Your task to perform on an android device: Open calendar and show me the first week of next month Image 0: 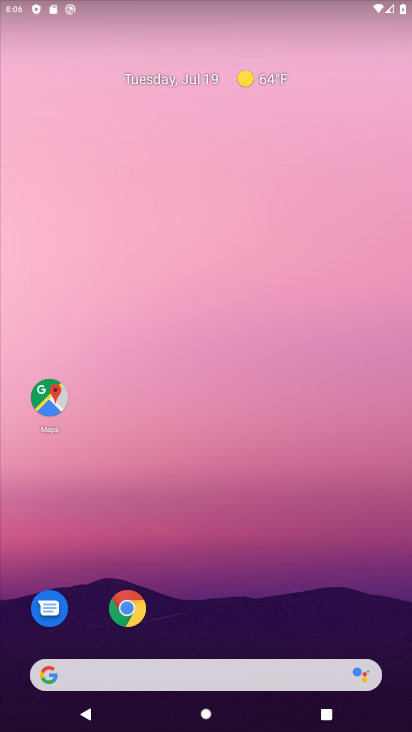
Step 0: drag from (217, 672) to (278, 129)
Your task to perform on an android device: Open calendar and show me the first week of next month Image 1: 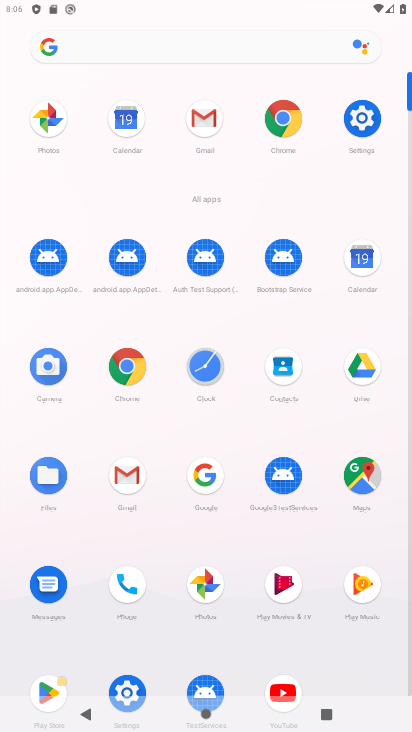
Step 1: click (351, 255)
Your task to perform on an android device: Open calendar and show me the first week of next month Image 2: 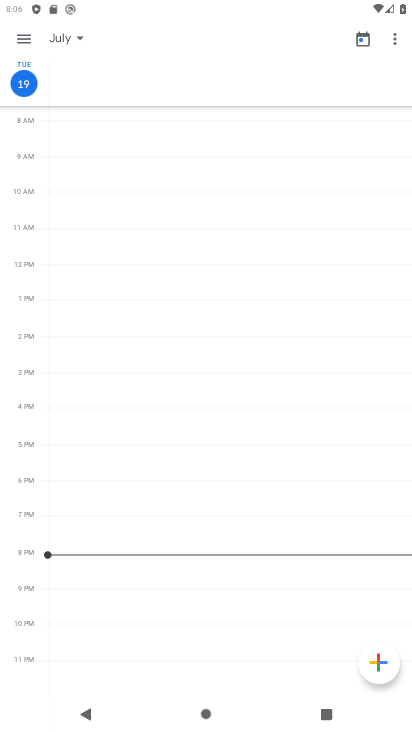
Step 2: click (29, 38)
Your task to perform on an android device: Open calendar and show me the first week of next month Image 3: 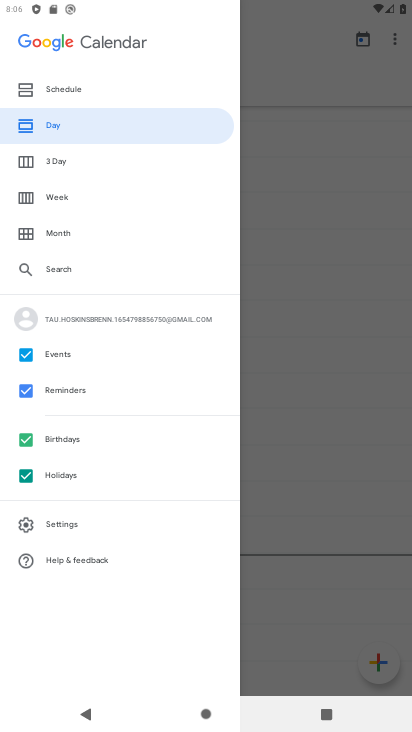
Step 3: click (50, 248)
Your task to perform on an android device: Open calendar and show me the first week of next month Image 4: 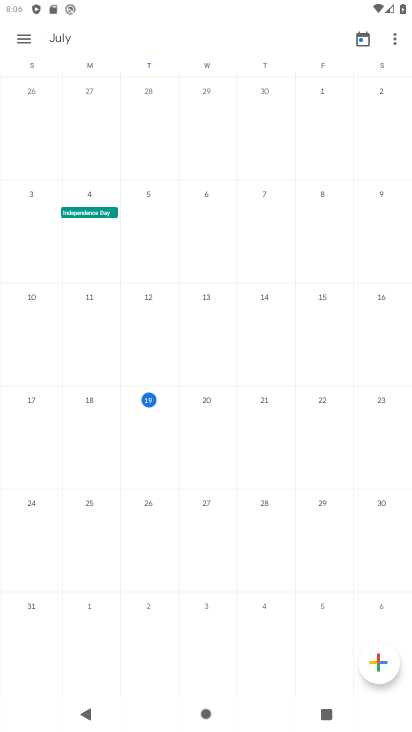
Step 4: task complete